Your task to perform on an android device: all mails in gmail Image 0: 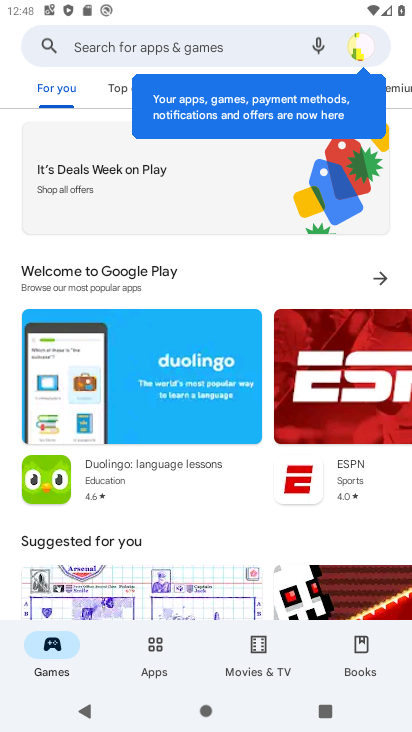
Step 0: press home button
Your task to perform on an android device: all mails in gmail Image 1: 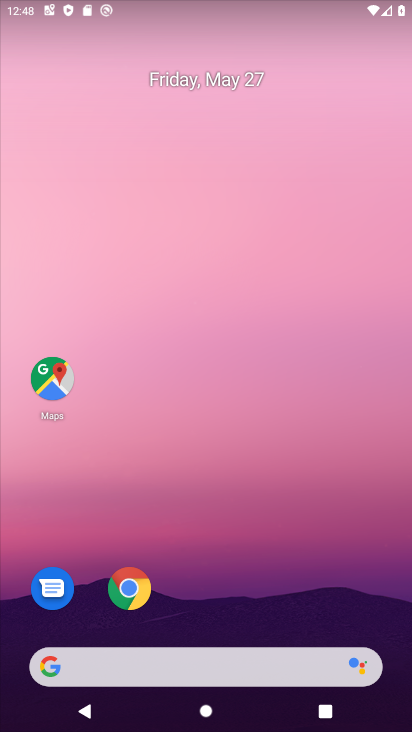
Step 1: drag from (220, 625) to (306, 0)
Your task to perform on an android device: all mails in gmail Image 2: 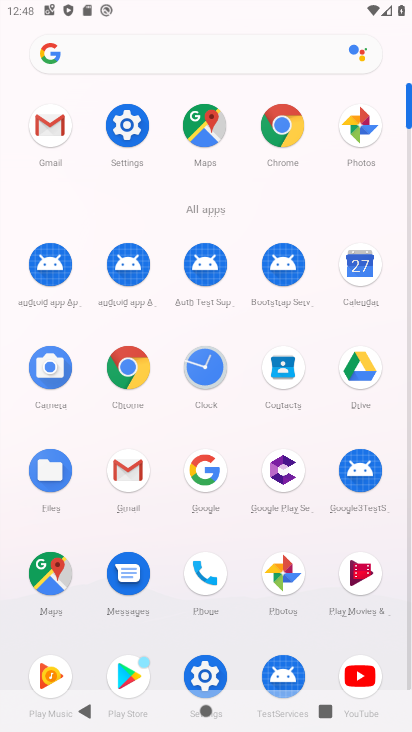
Step 2: click (128, 465)
Your task to perform on an android device: all mails in gmail Image 3: 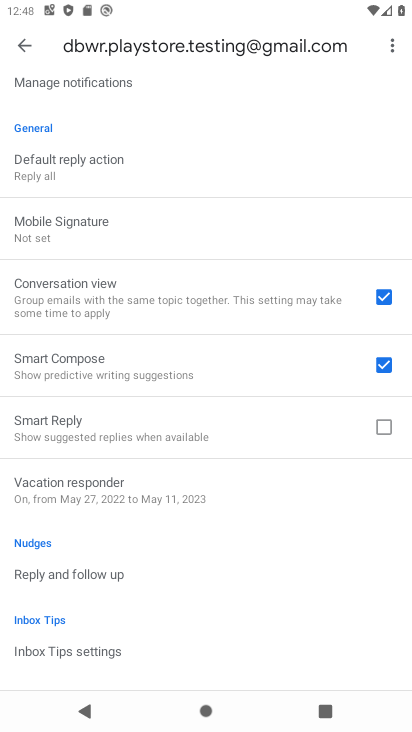
Step 3: click (23, 50)
Your task to perform on an android device: all mails in gmail Image 4: 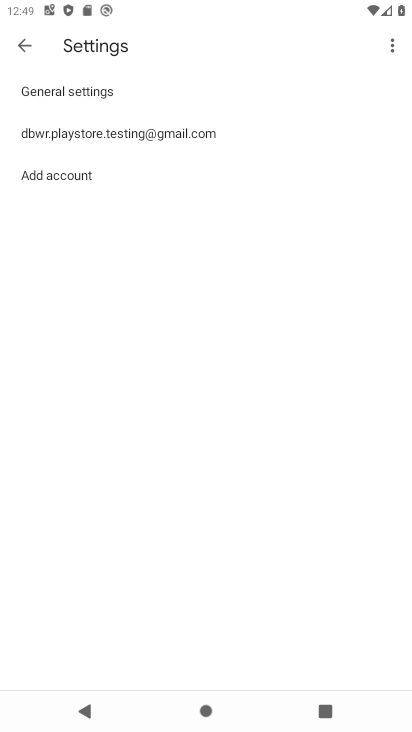
Step 4: click (23, 50)
Your task to perform on an android device: all mails in gmail Image 5: 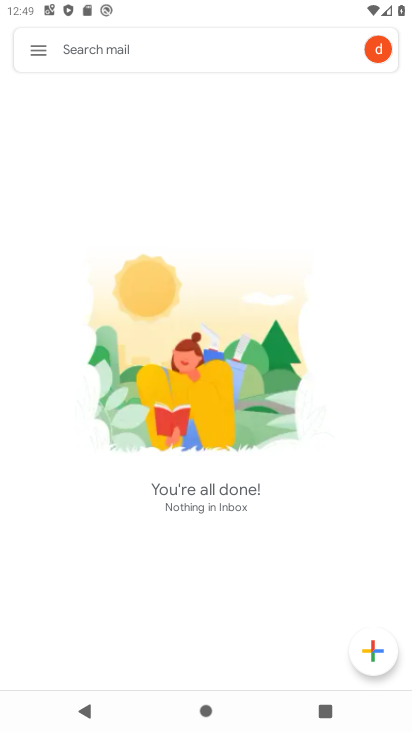
Step 5: click (42, 56)
Your task to perform on an android device: all mails in gmail Image 6: 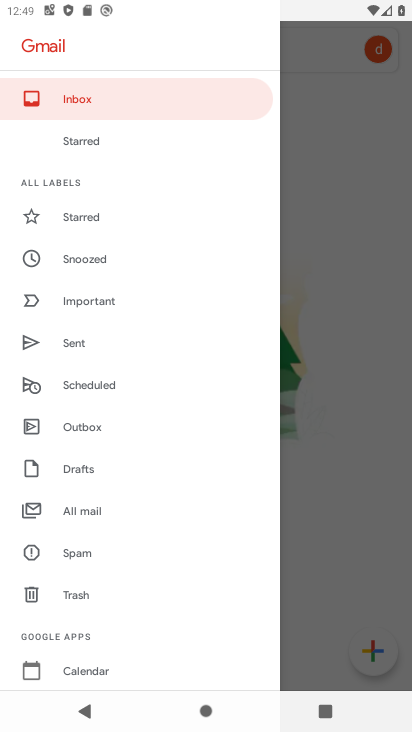
Step 6: click (98, 507)
Your task to perform on an android device: all mails in gmail Image 7: 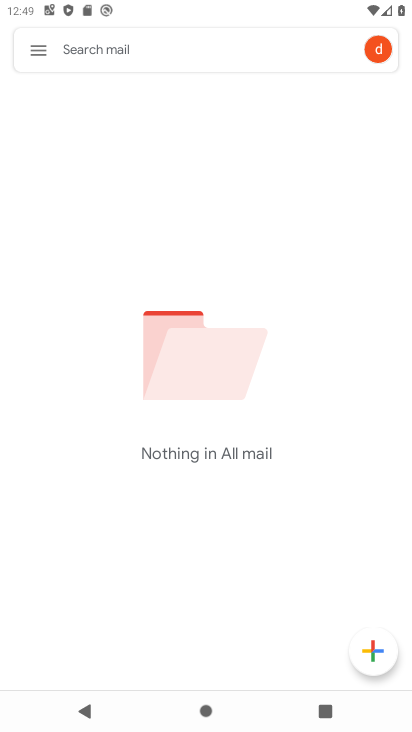
Step 7: click (37, 43)
Your task to perform on an android device: all mails in gmail Image 8: 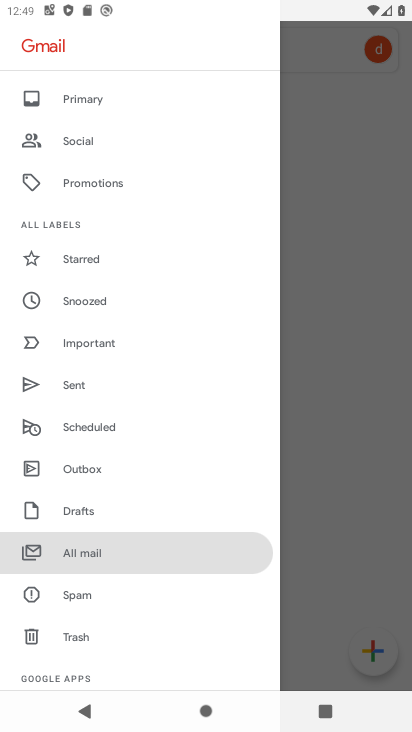
Step 8: click (107, 555)
Your task to perform on an android device: all mails in gmail Image 9: 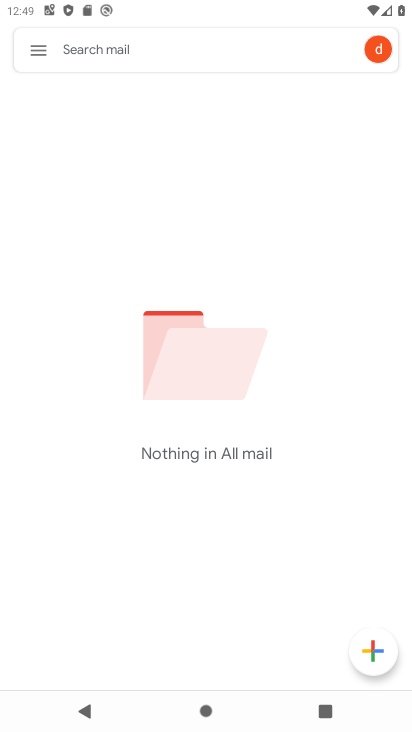
Step 9: task complete